Your task to perform on an android device: Turn off the flashlight Image 0: 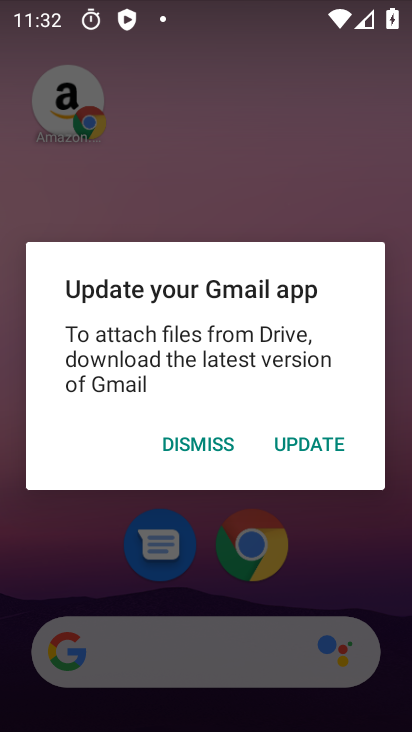
Step 0: press home button
Your task to perform on an android device: Turn off the flashlight Image 1: 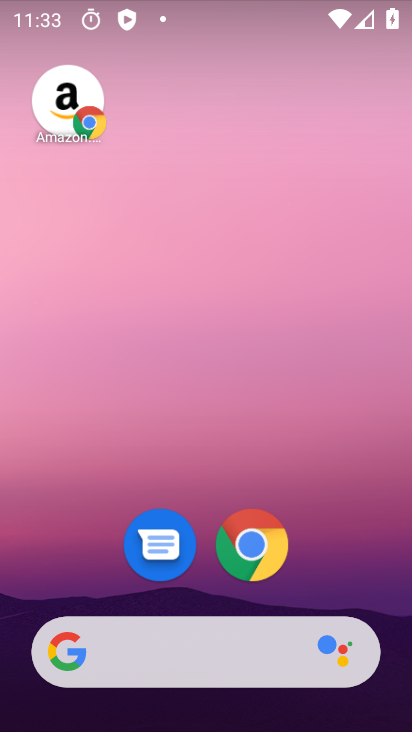
Step 1: drag from (253, 693) to (305, 368)
Your task to perform on an android device: Turn off the flashlight Image 2: 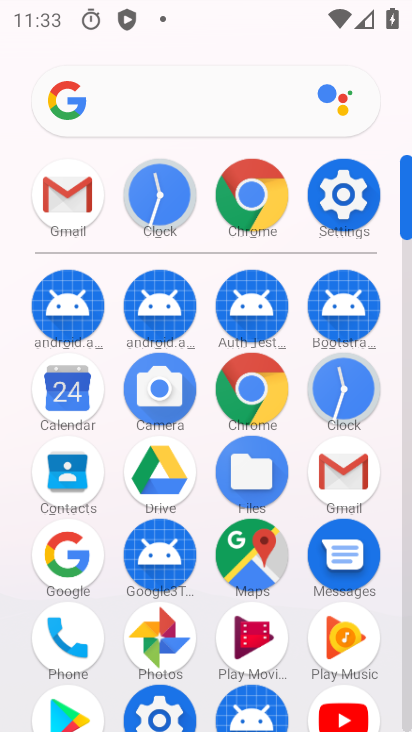
Step 2: click (332, 214)
Your task to perform on an android device: Turn off the flashlight Image 3: 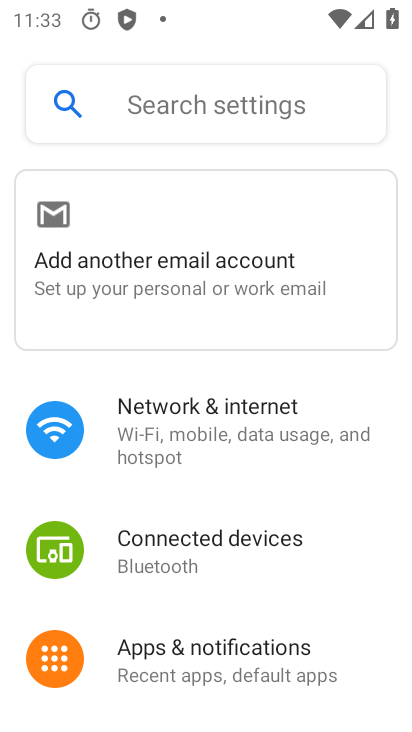
Step 3: click (193, 114)
Your task to perform on an android device: Turn off the flashlight Image 4: 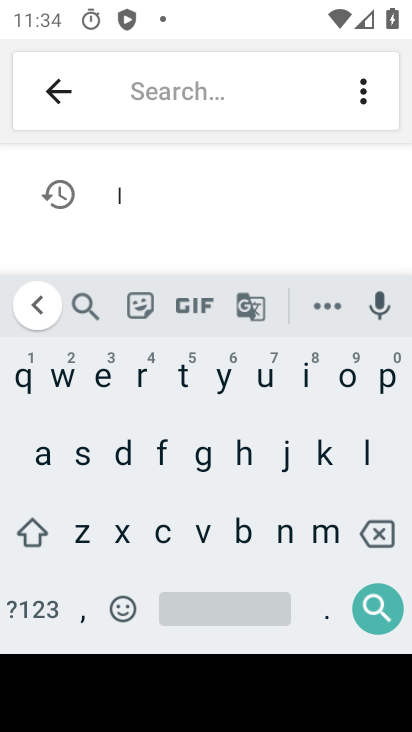
Step 4: click (169, 450)
Your task to perform on an android device: Turn off the flashlight Image 5: 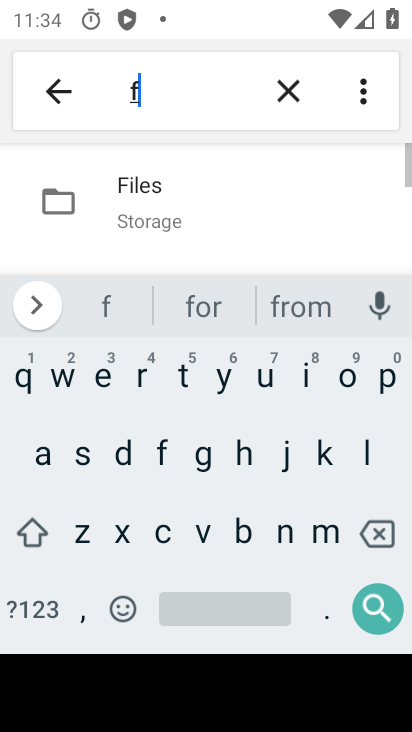
Step 5: click (363, 451)
Your task to perform on an android device: Turn off the flashlight Image 6: 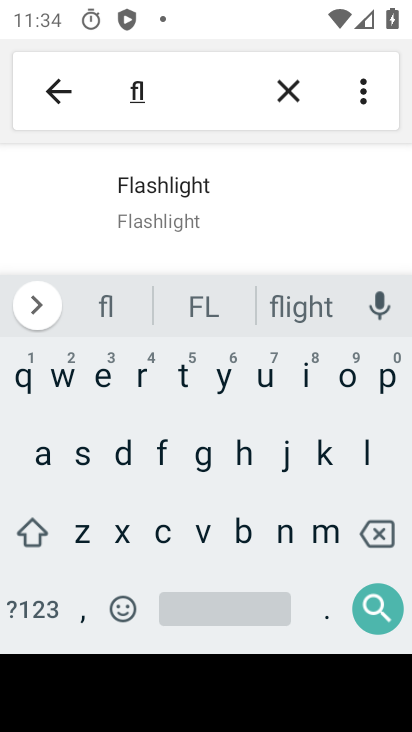
Step 6: click (244, 219)
Your task to perform on an android device: Turn off the flashlight Image 7: 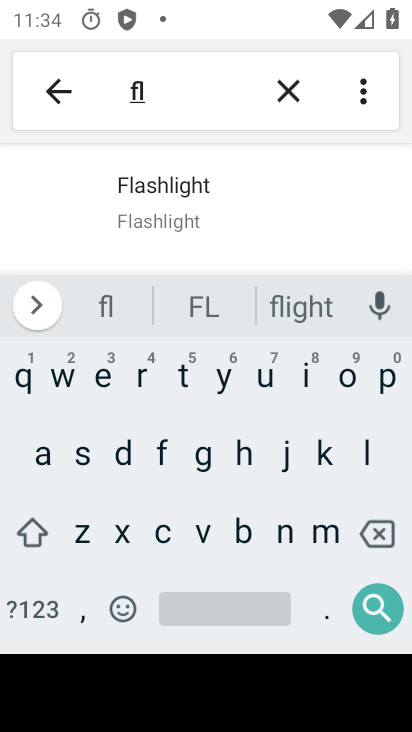
Step 7: click (204, 190)
Your task to perform on an android device: Turn off the flashlight Image 8: 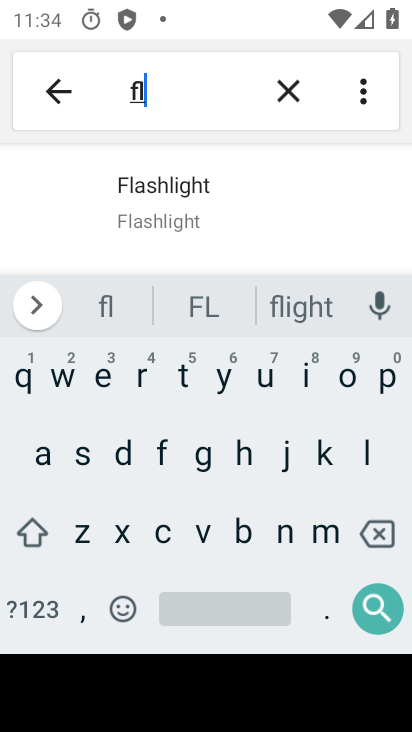
Step 8: task complete